Your task to perform on an android device: Show me popular videos on Youtube Image 0: 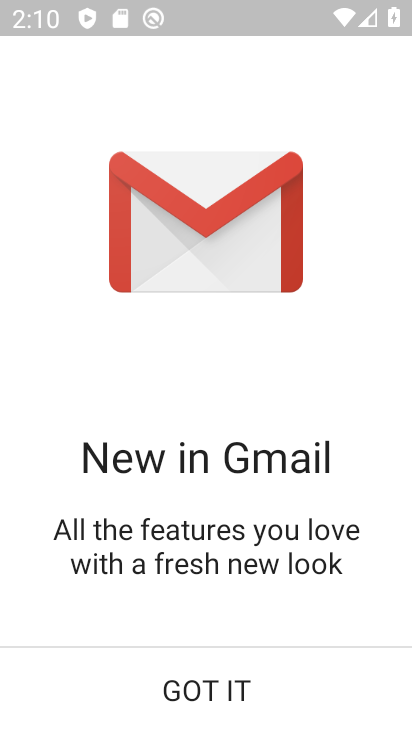
Step 0: click (187, 699)
Your task to perform on an android device: Show me popular videos on Youtube Image 1: 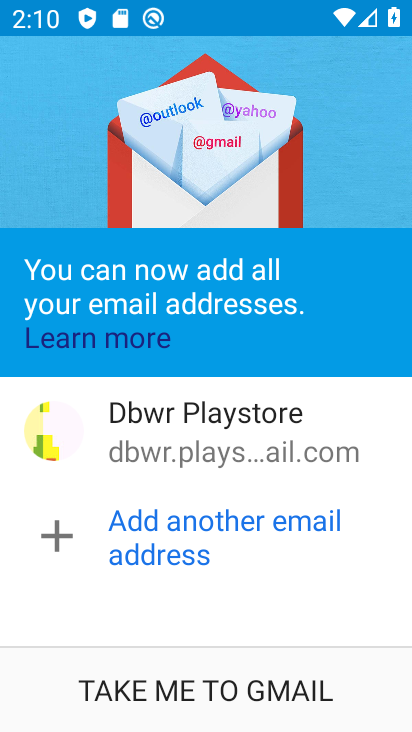
Step 1: click (187, 699)
Your task to perform on an android device: Show me popular videos on Youtube Image 2: 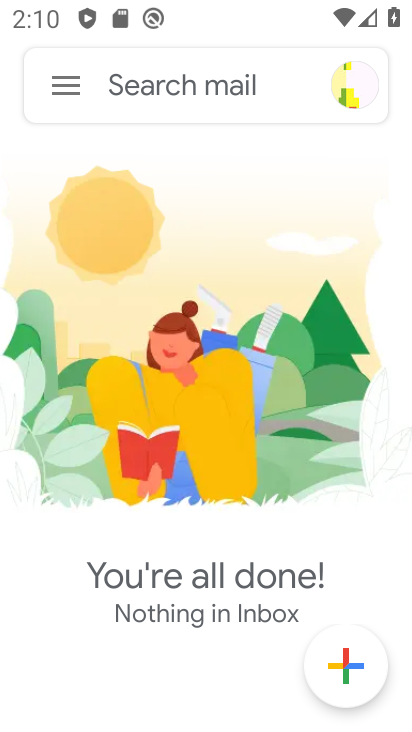
Step 2: press home button
Your task to perform on an android device: Show me popular videos on Youtube Image 3: 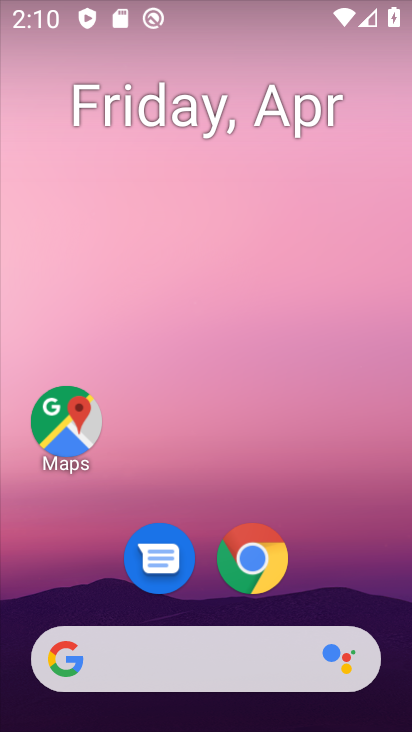
Step 3: drag from (320, 556) to (345, 18)
Your task to perform on an android device: Show me popular videos on Youtube Image 4: 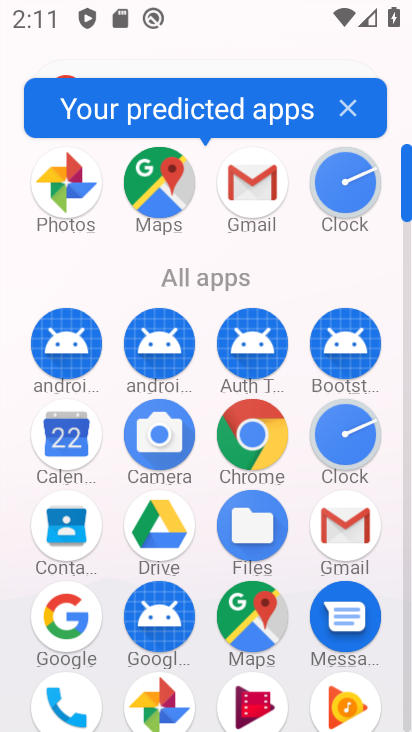
Step 4: click (409, 637)
Your task to perform on an android device: Show me popular videos on Youtube Image 5: 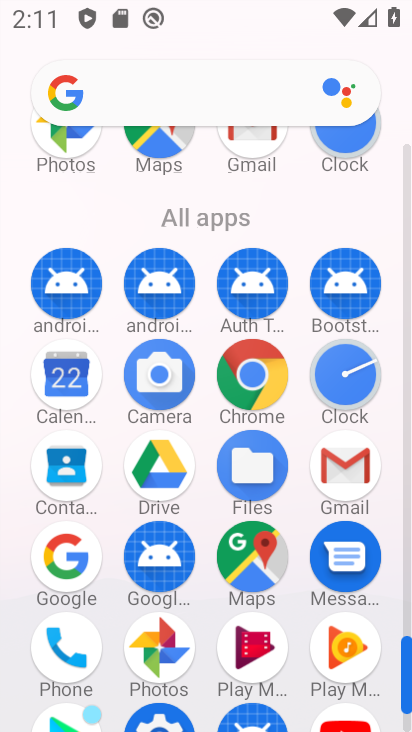
Step 5: click (337, 727)
Your task to perform on an android device: Show me popular videos on Youtube Image 6: 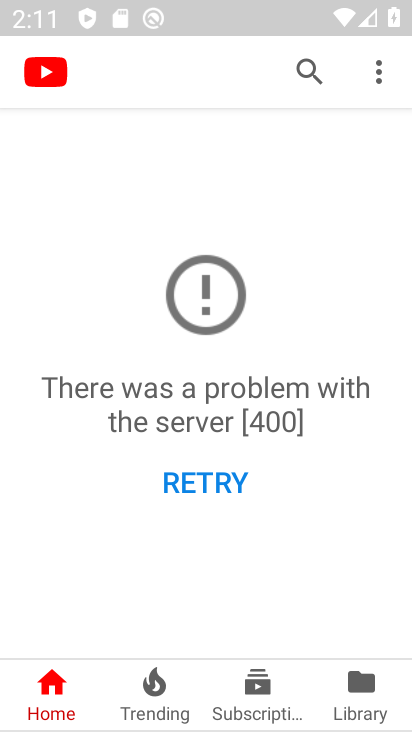
Step 6: click (234, 470)
Your task to perform on an android device: Show me popular videos on Youtube Image 7: 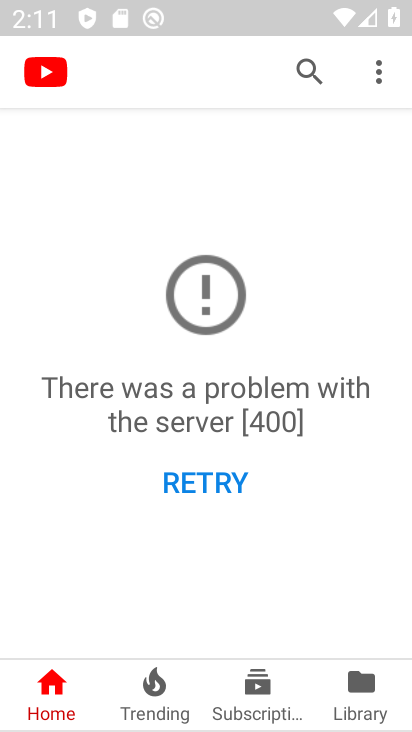
Step 7: click (234, 470)
Your task to perform on an android device: Show me popular videos on Youtube Image 8: 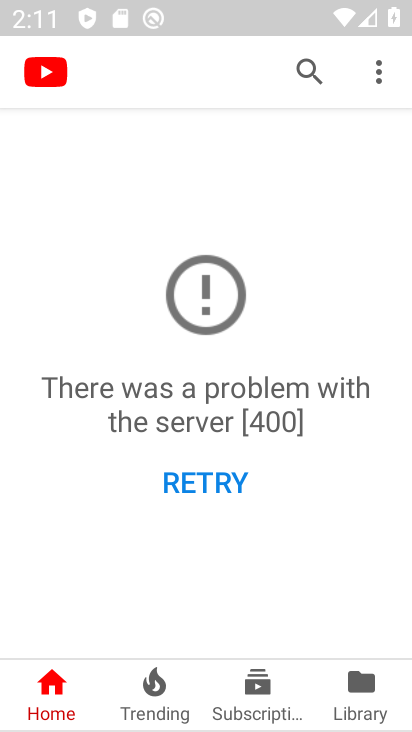
Step 8: task complete